Your task to perform on an android device: Open settings on Google Maps Image 0: 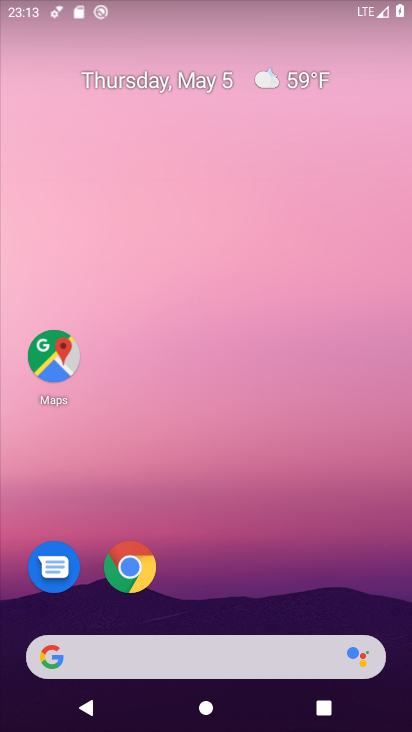
Step 0: click (47, 356)
Your task to perform on an android device: Open settings on Google Maps Image 1: 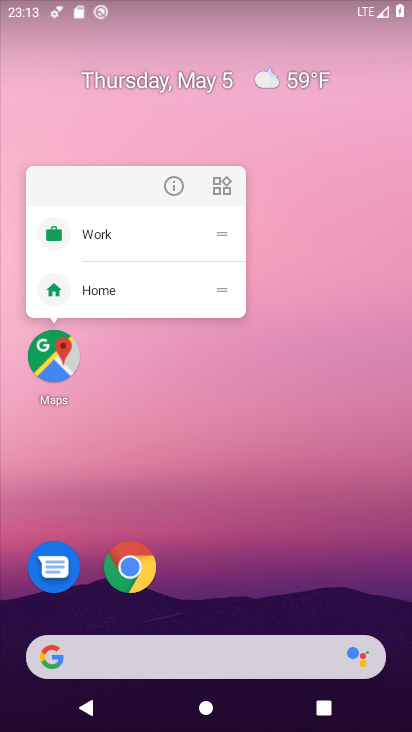
Step 1: click (51, 358)
Your task to perform on an android device: Open settings on Google Maps Image 2: 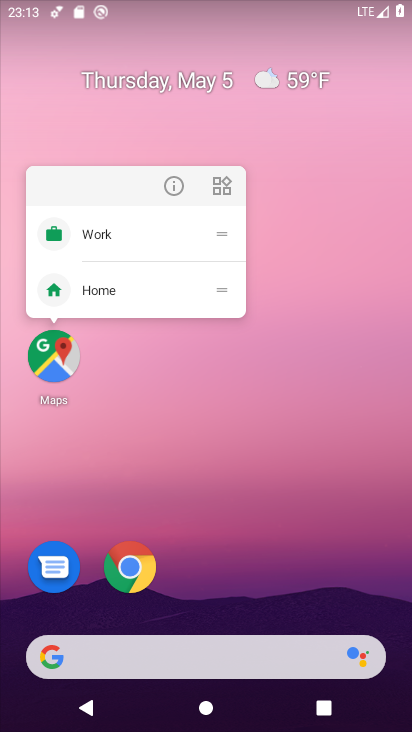
Step 2: click (56, 349)
Your task to perform on an android device: Open settings on Google Maps Image 3: 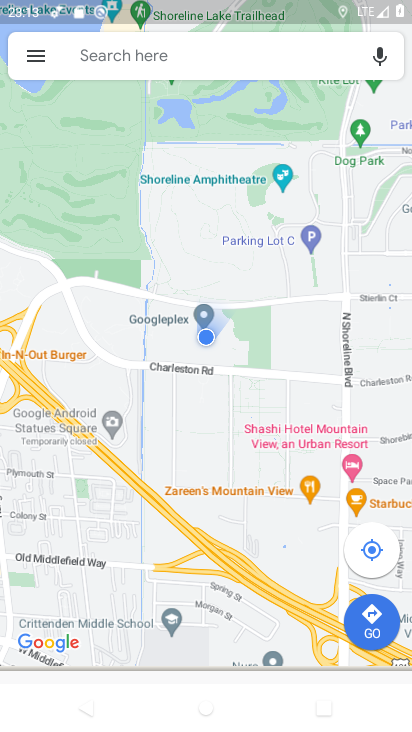
Step 3: click (34, 59)
Your task to perform on an android device: Open settings on Google Maps Image 4: 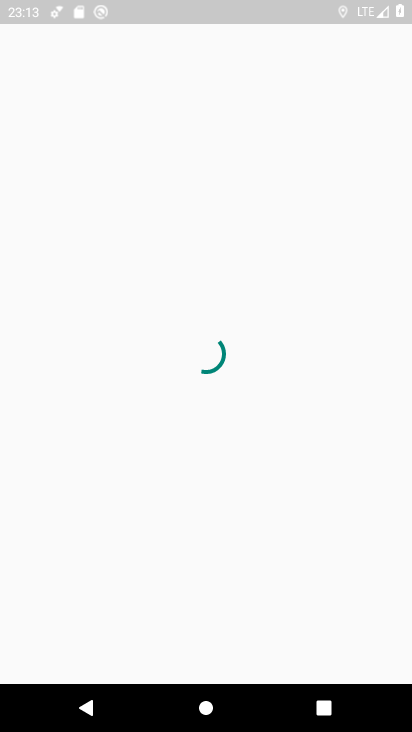
Step 4: drag from (192, 606) to (182, 251)
Your task to perform on an android device: Open settings on Google Maps Image 5: 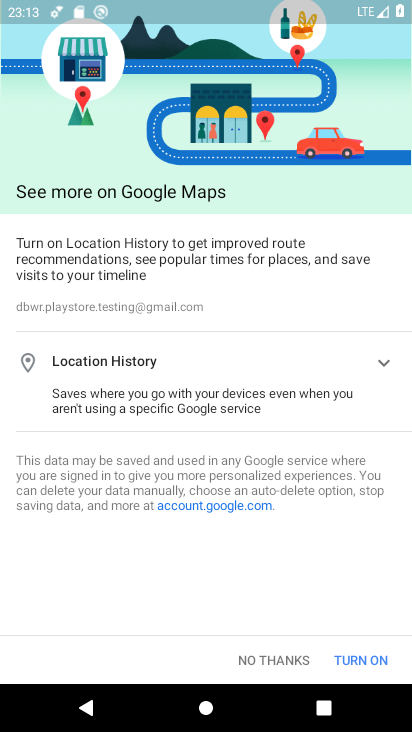
Step 5: click (267, 656)
Your task to perform on an android device: Open settings on Google Maps Image 6: 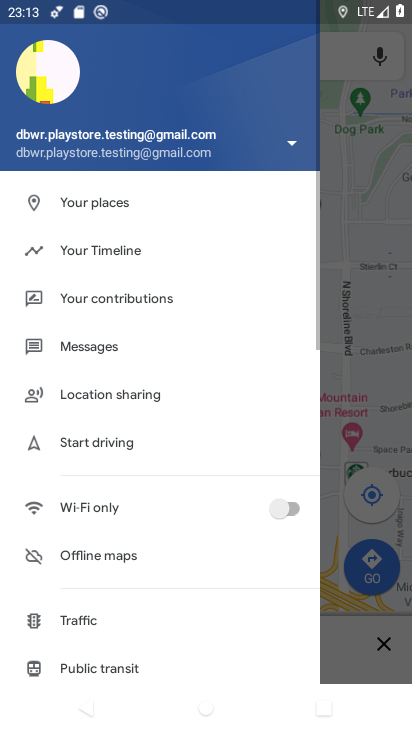
Step 6: drag from (142, 532) to (134, 157)
Your task to perform on an android device: Open settings on Google Maps Image 7: 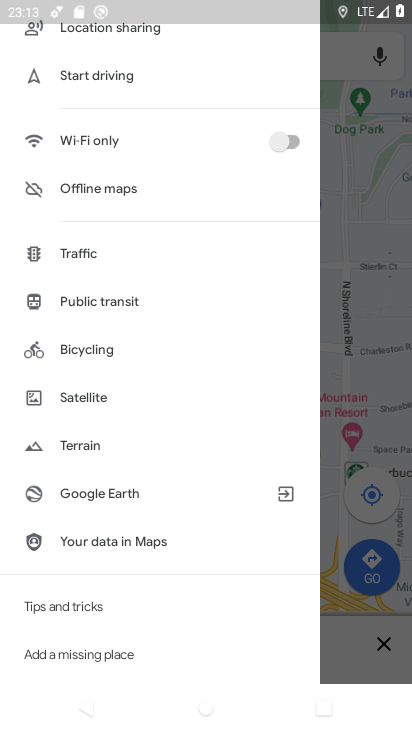
Step 7: drag from (131, 567) to (133, 346)
Your task to perform on an android device: Open settings on Google Maps Image 8: 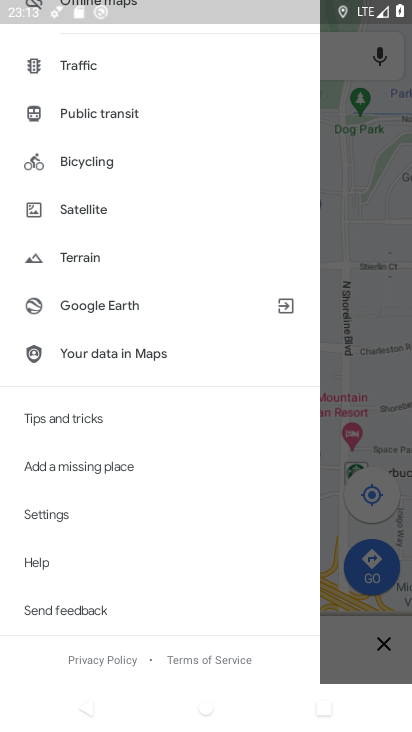
Step 8: click (50, 507)
Your task to perform on an android device: Open settings on Google Maps Image 9: 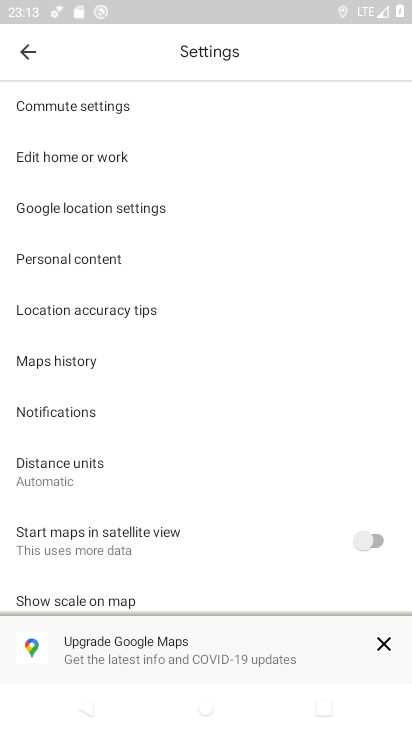
Step 9: task complete